Your task to perform on an android device: Install the Starbucks app Image 0: 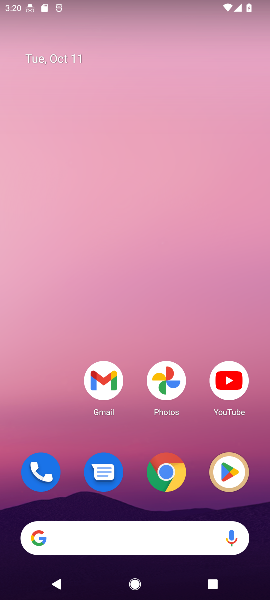
Step 0: click (229, 483)
Your task to perform on an android device: Install the Starbucks app Image 1: 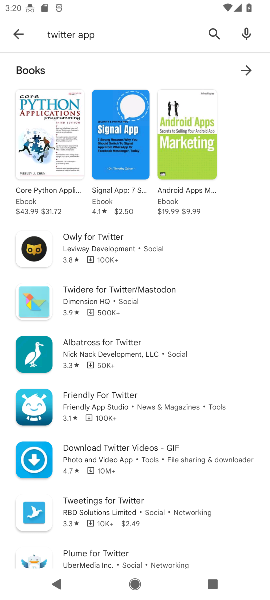
Step 1: click (216, 37)
Your task to perform on an android device: Install the Starbucks app Image 2: 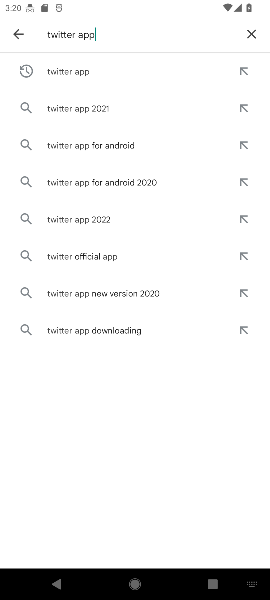
Step 2: click (252, 35)
Your task to perform on an android device: Install the Starbucks app Image 3: 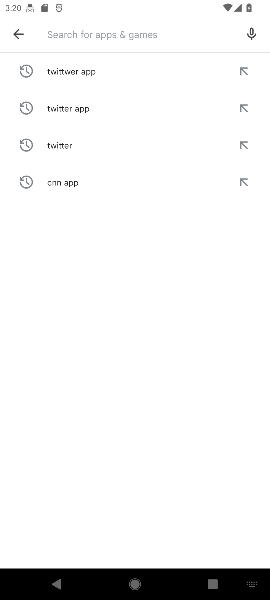
Step 3: type "starbucks"
Your task to perform on an android device: Install the Starbucks app Image 4: 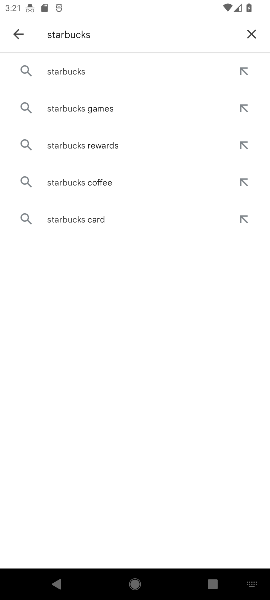
Step 4: click (55, 72)
Your task to perform on an android device: Install the Starbucks app Image 5: 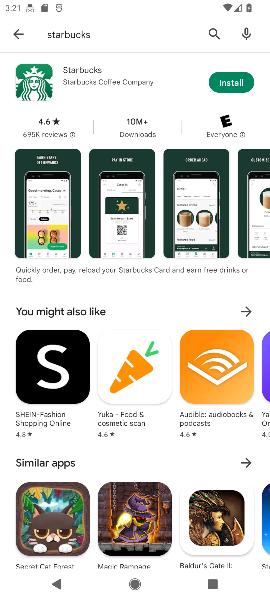
Step 5: click (221, 73)
Your task to perform on an android device: Install the Starbucks app Image 6: 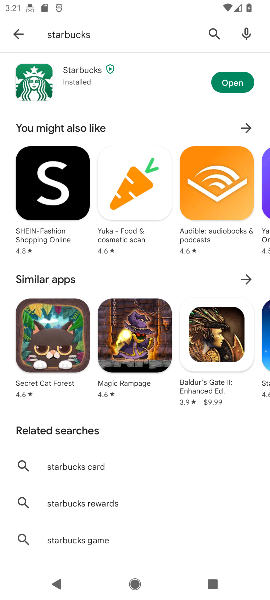
Step 6: task complete